Your task to perform on an android device: turn pop-ups off in chrome Image 0: 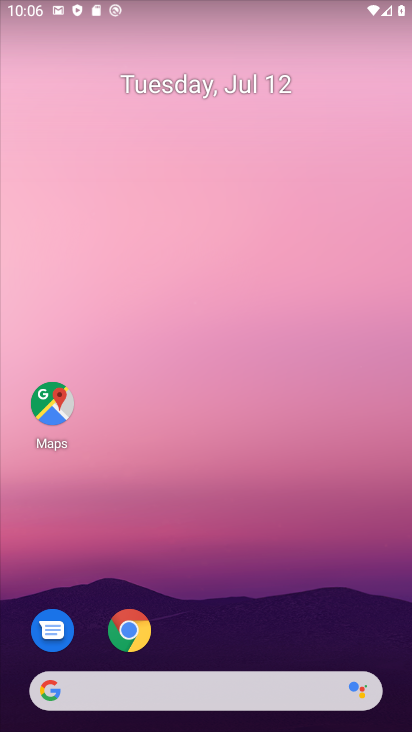
Step 0: drag from (366, 620) to (349, 44)
Your task to perform on an android device: turn pop-ups off in chrome Image 1: 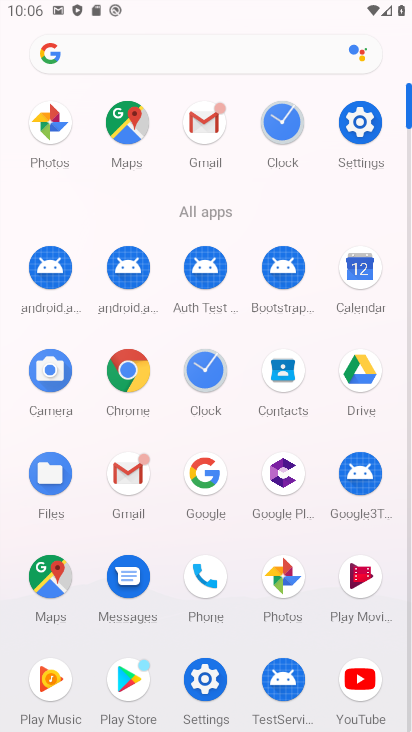
Step 1: click (133, 369)
Your task to perform on an android device: turn pop-ups off in chrome Image 2: 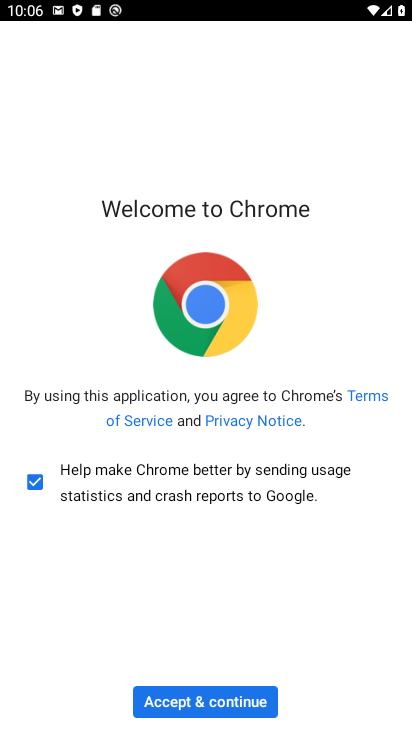
Step 2: click (201, 709)
Your task to perform on an android device: turn pop-ups off in chrome Image 3: 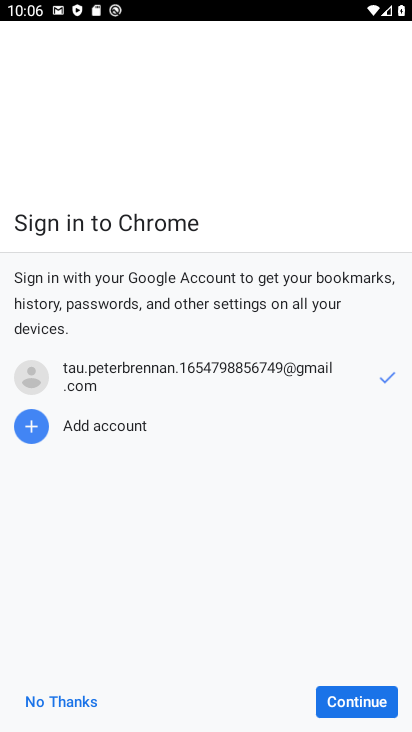
Step 3: click (346, 700)
Your task to perform on an android device: turn pop-ups off in chrome Image 4: 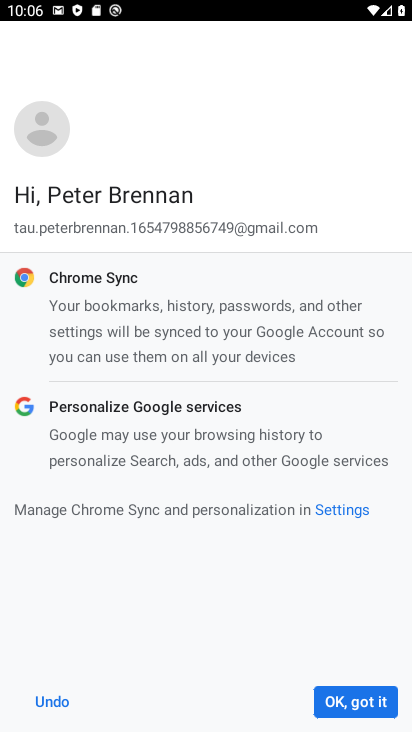
Step 4: click (346, 700)
Your task to perform on an android device: turn pop-ups off in chrome Image 5: 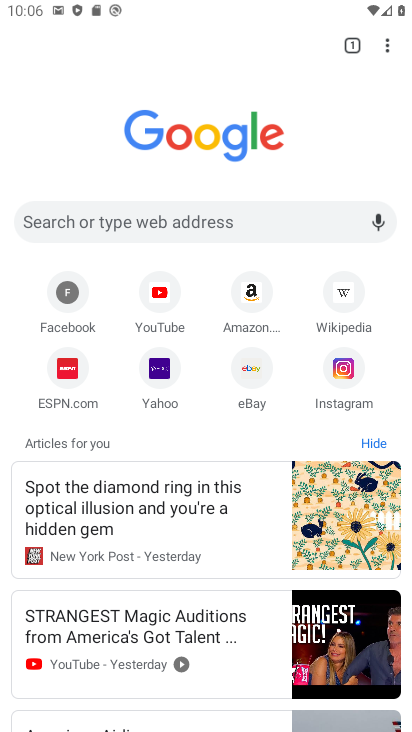
Step 5: click (385, 46)
Your task to perform on an android device: turn pop-ups off in chrome Image 6: 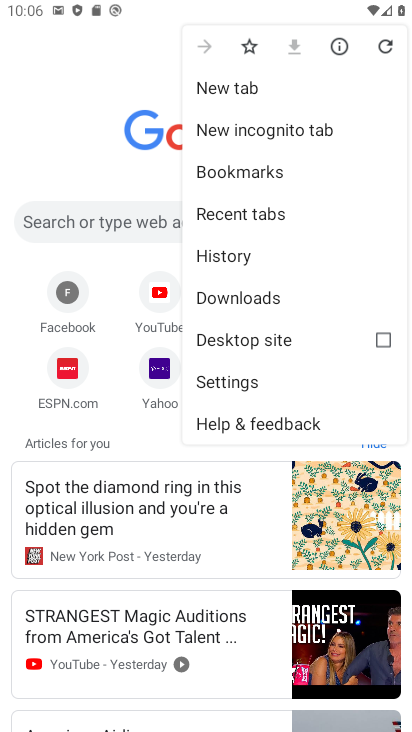
Step 6: click (311, 371)
Your task to perform on an android device: turn pop-ups off in chrome Image 7: 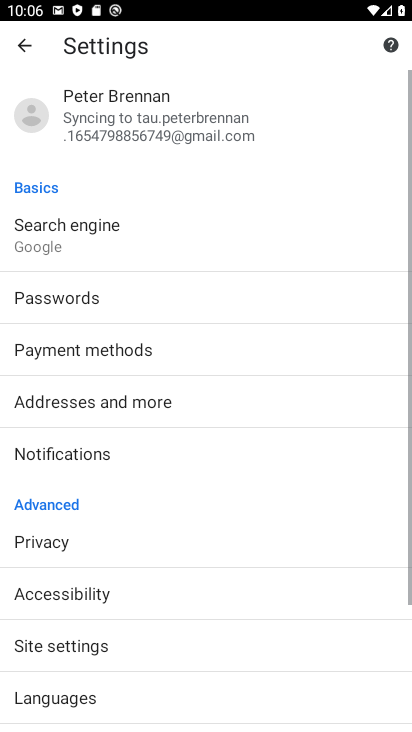
Step 7: drag from (304, 395) to (300, 303)
Your task to perform on an android device: turn pop-ups off in chrome Image 8: 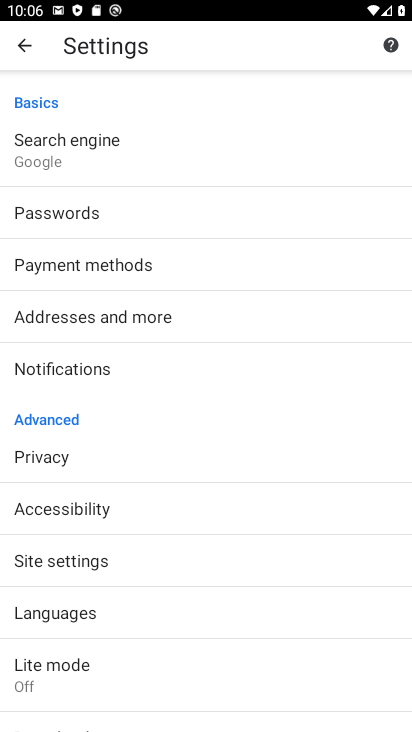
Step 8: drag from (300, 384) to (300, 251)
Your task to perform on an android device: turn pop-ups off in chrome Image 9: 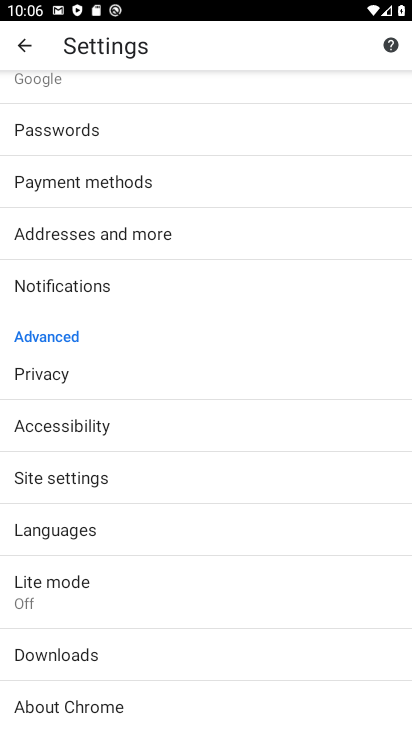
Step 9: drag from (288, 346) to (288, 252)
Your task to perform on an android device: turn pop-ups off in chrome Image 10: 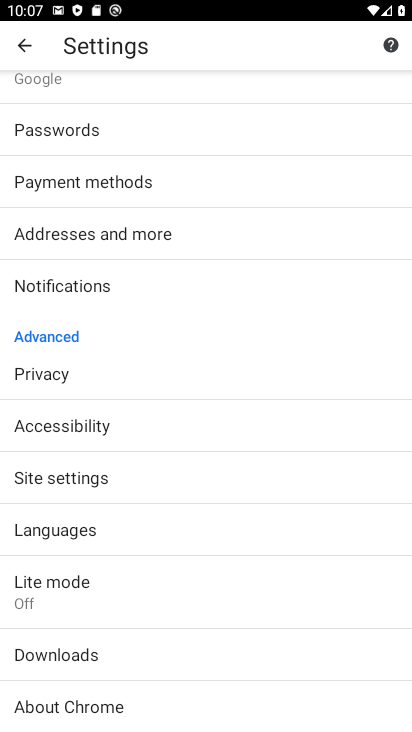
Step 10: click (188, 485)
Your task to perform on an android device: turn pop-ups off in chrome Image 11: 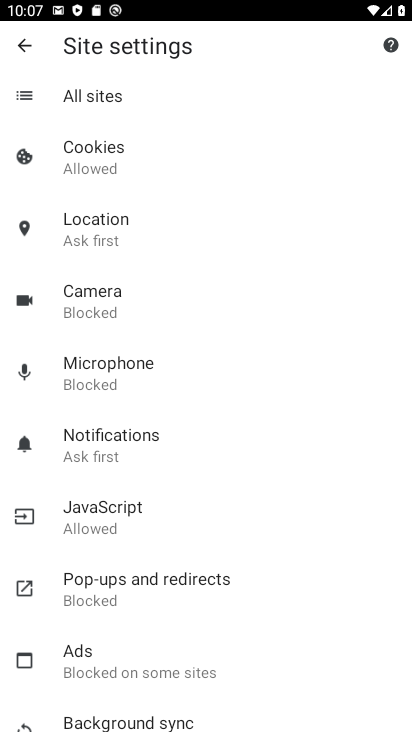
Step 11: drag from (303, 254) to (310, 376)
Your task to perform on an android device: turn pop-ups off in chrome Image 12: 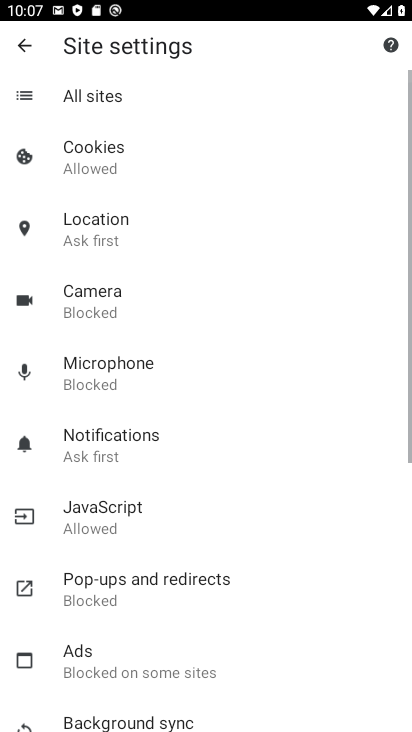
Step 12: drag from (325, 468) to (335, 362)
Your task to perform on an android device: turn pop-ups off in chrome Image 13: 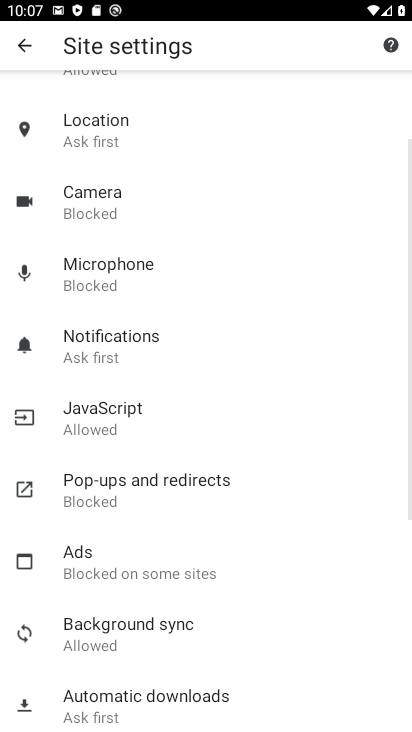
Step 13: drag from (319, 441) to (318, 308)
Your task to perform on an android device: turn pop-ups off in chrome Image 14: 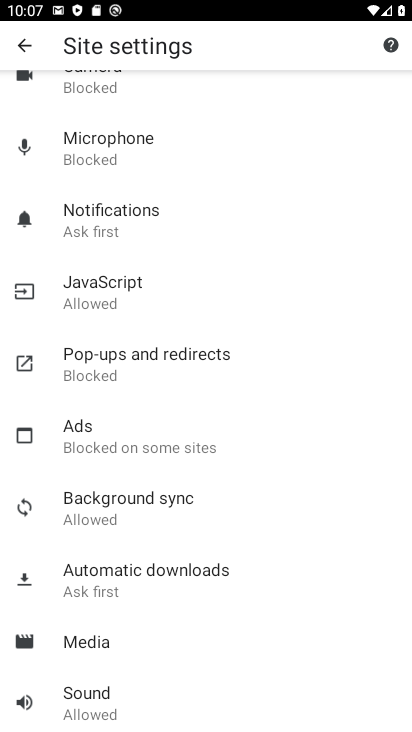
Step 14: drag from (318, 453) to (320, 362)
Your task to perform on an android device: turn pop-ups off in chrome Image 15: 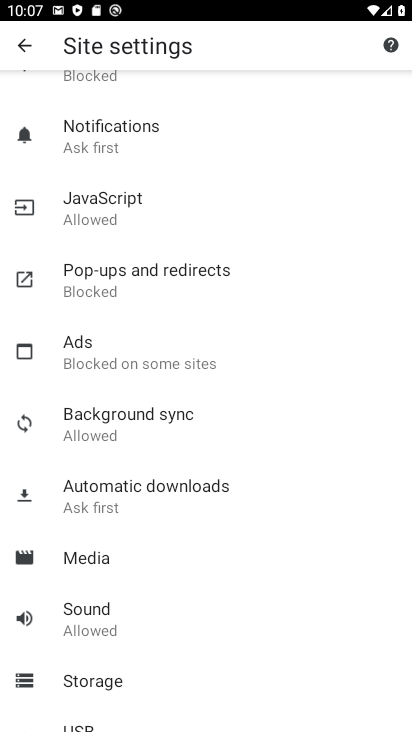
Step 15: drag from (333, 236) to (323, 372)
Your task to perform on an android device: turn pop-ups off in chrome Image 16: 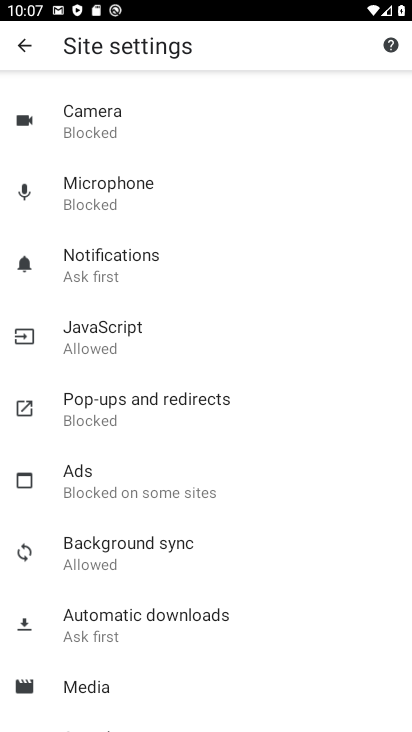
Step 16: click (226, 412)
Your task to perform on an android device: turn pop-ups off in chrome Image 17: 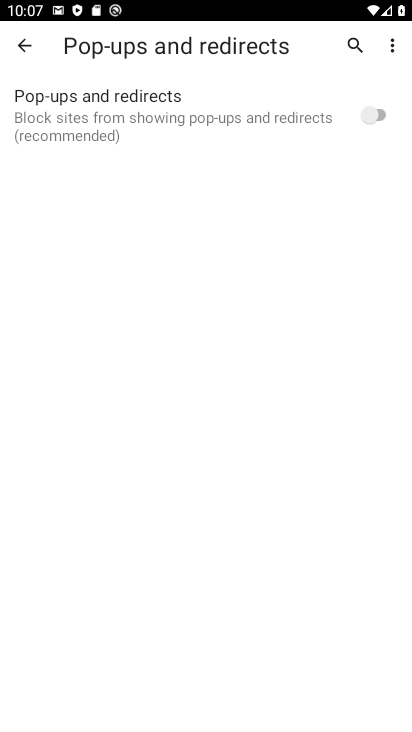
Step 17: task complete